Your task to perform on an android device: snooze an email in the gmail app Image 0: 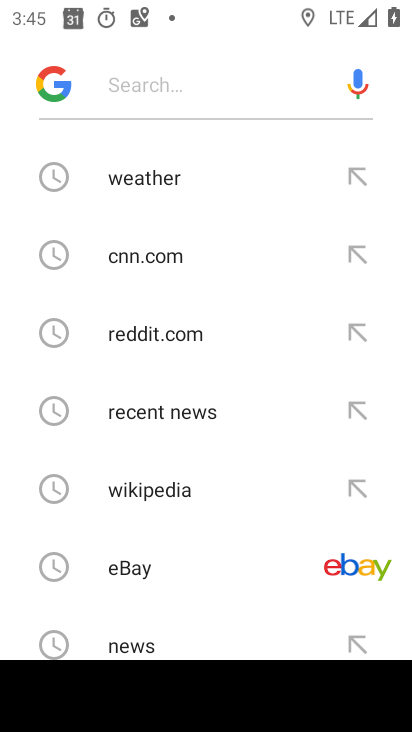
Step 0: press back button
Your task to perform on an android device: snooze an email in the gmail app Image 1: 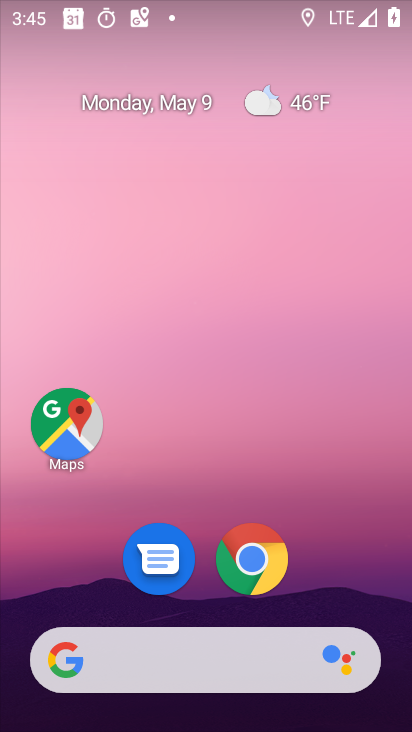
Step 1: press back button
Your task to perform on an android device: snooze an email in the gmail app Image 2: 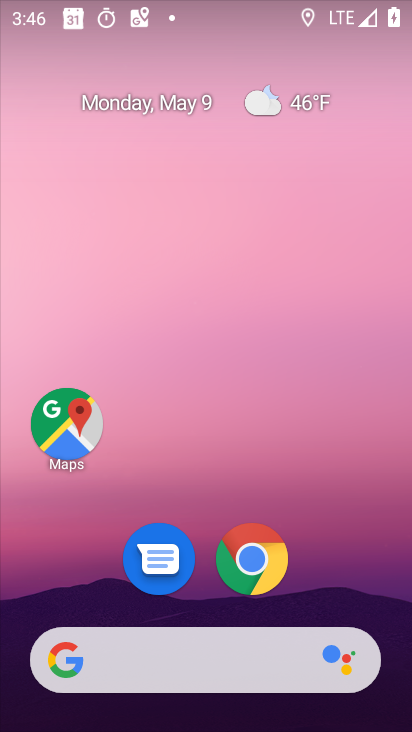
Step 2: drag from (217, 448) to (249, 39)
Your task to perform on an android device: snooze an email in the gmail app Image 3: 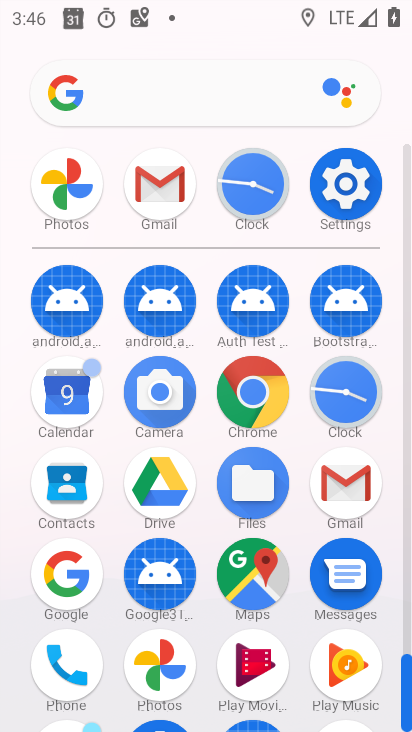
Step 3: click (162, 182)
Your task to perform on an android device: snooze an email in the gmail app Image 4: 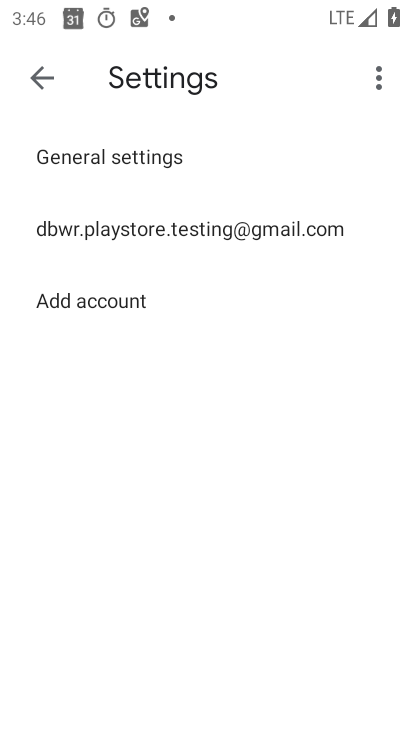
Step 4: press back button
Your task to perform on an android device: snooze an email in the gmail app Image 5: 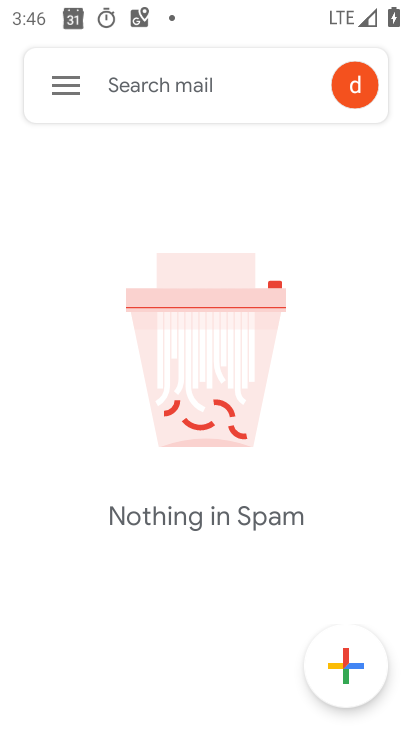
Step 5: click (72, 86)
Your task to perform on an android device: snooze an email in the gmail app Image 6: 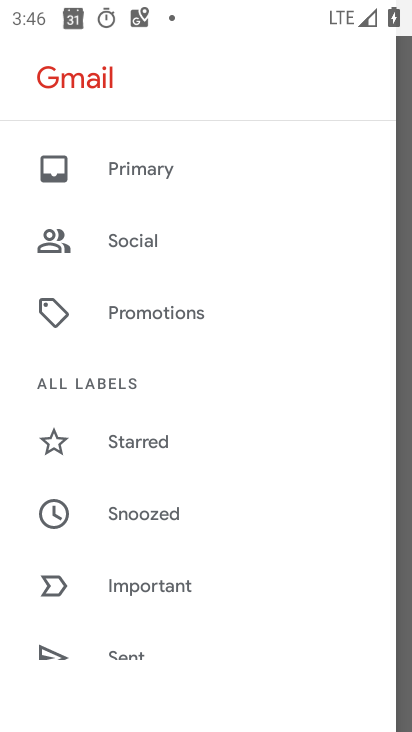
Step 6: drag from (144, 522) to (191, 381)
Your task to perform on an android device: snooze an email in the gmail app Image 7: 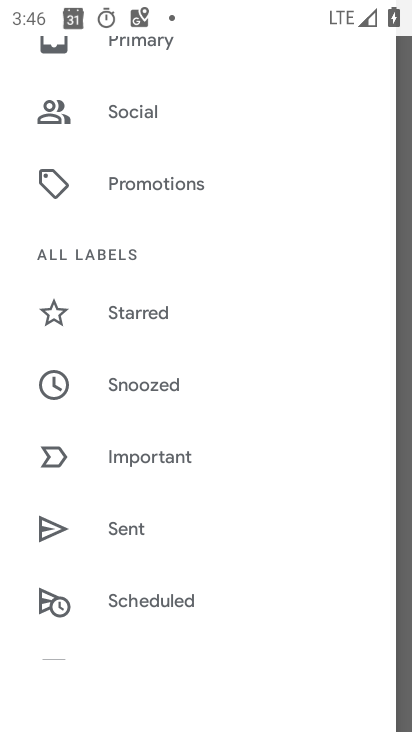
Step 7: drag from (156, 541) to (180, 388)
Your task to perform on an android device: snooze an email in the gmail app Image 8: 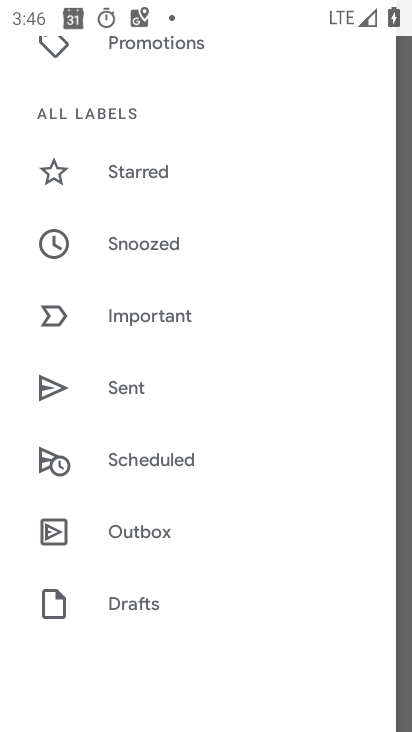
Step 8: drag from (138, 546) to (218, 395)
Your task to perform on an android device: snooze an email in the gmail app Image 9: 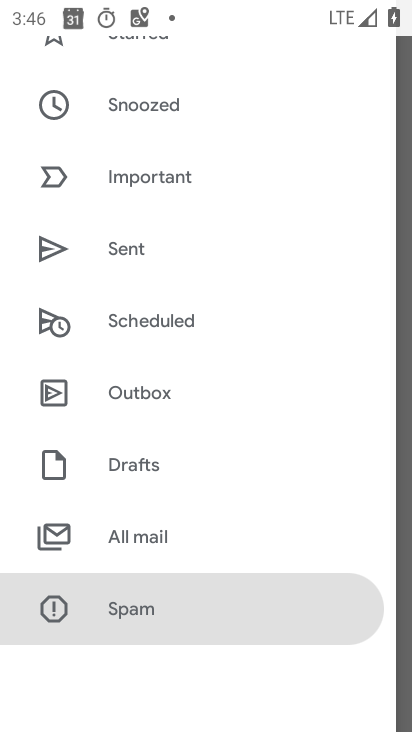
Step 9: click (169, 541)
Your task to perform on an android device: snooze an email in the gmail app Image 10: 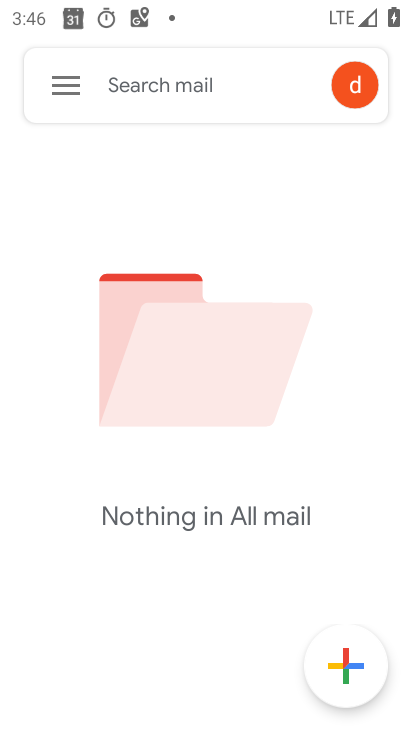
Step 10: click (69, 89)
Your task to perform on an android device: snooze an email in the gmail app Image 11: 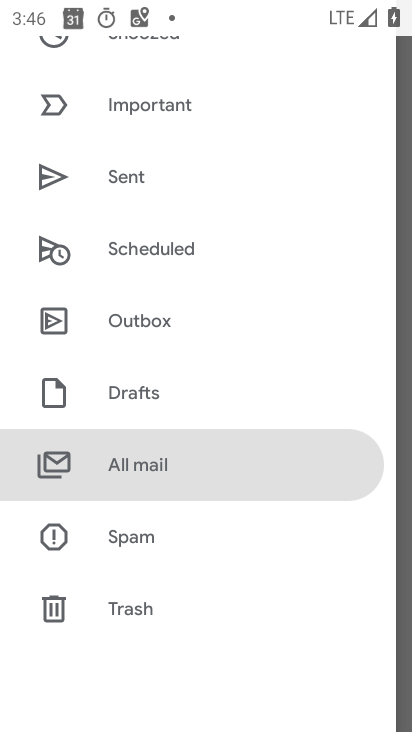
Step 11: task complete